Your task to perform on an android device: Go to Wikipedia Image 0: 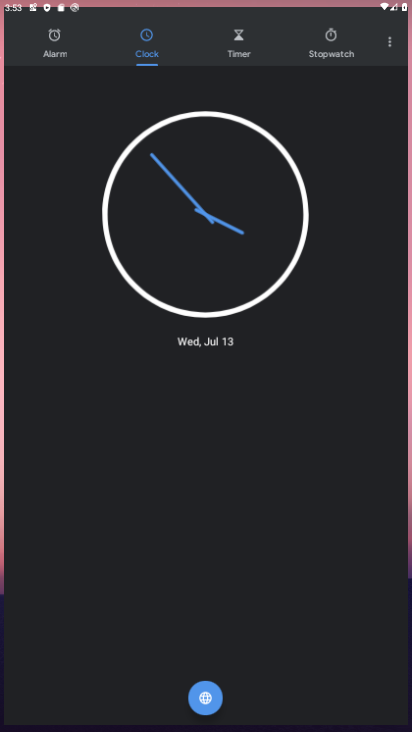
Step 0: drag from (210, 662) to (214, 136)
Your task to perform on an android device: Go to Wikipedia Image 1: 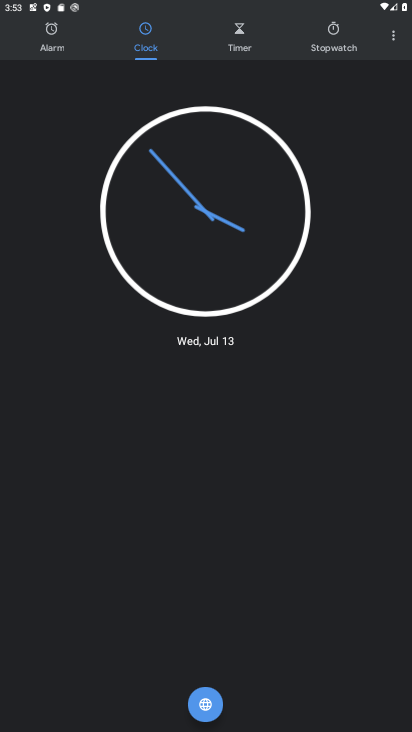
Step 1: press home button
Your task to perform on an android device: Go to Wikipedia Image 2: 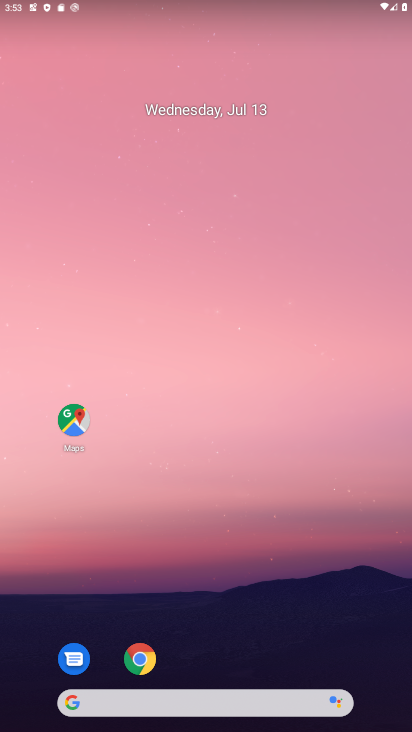
Step 2: click (141, 656)
Your task to perform on an android device: Go to Wikipedia Image 3: 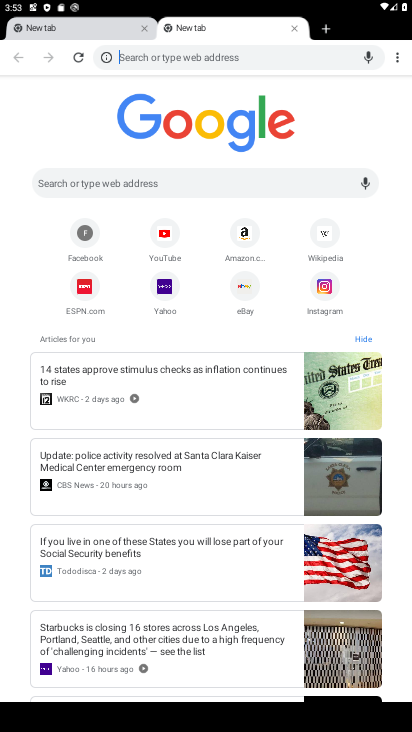
Step 3: click (320, 231)
Your task to perform on an android device: Go to Wikipedia Image 4: 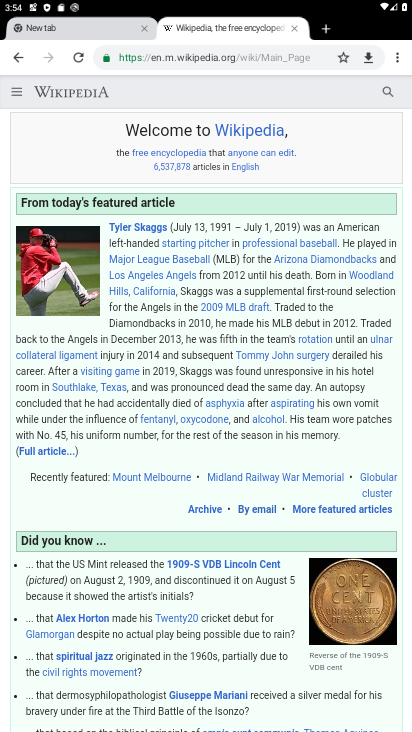
Step 4: task complete